Your task to perform on an android device: Clear all items from cart on costco. Search for "panasonic triple a" on costco, select the first entry, add it to the cart, then select checkout. Image 0: 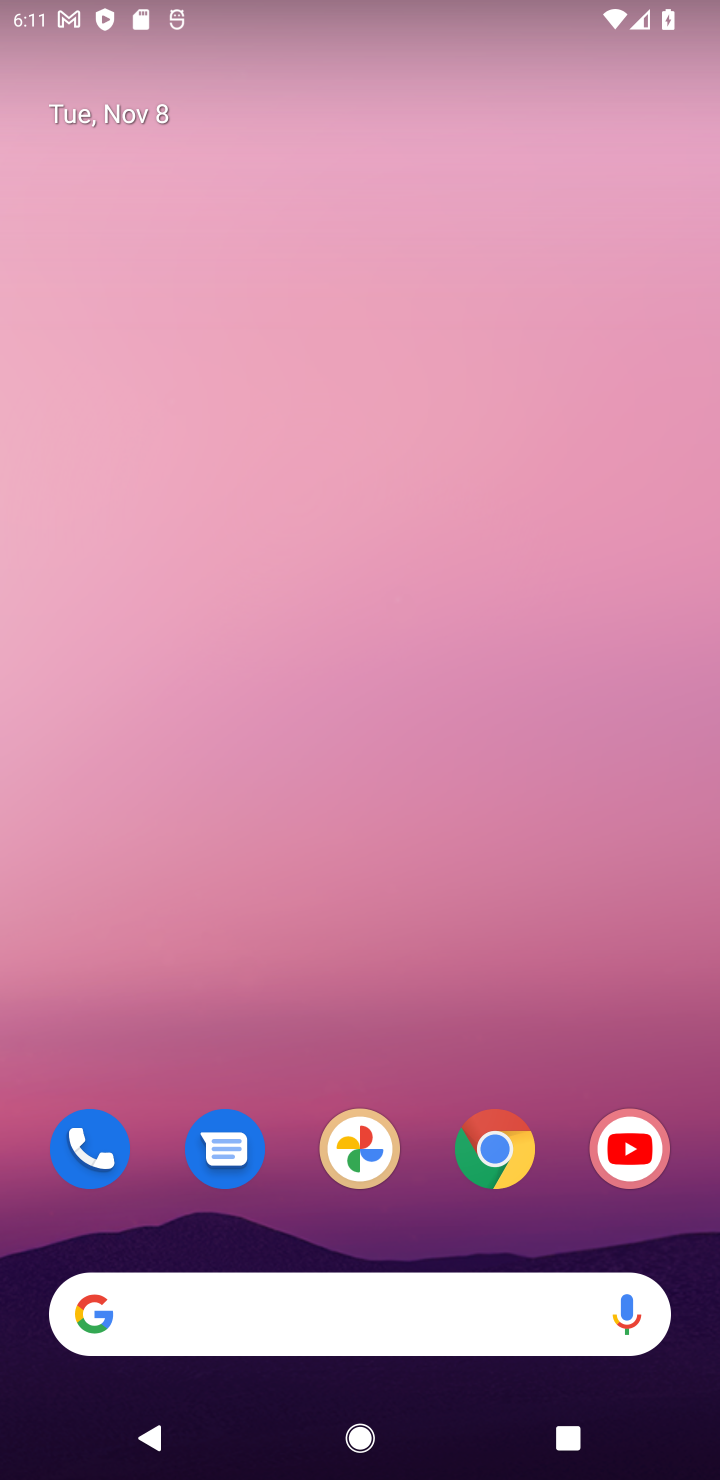
Step 0: click (467, 1135)
Your task to perform on an android device: Clear all items from cart on costco. Search for "panasonic triple a" on costco, select the first entry, add it to the cart, then select checkout. Image 1: 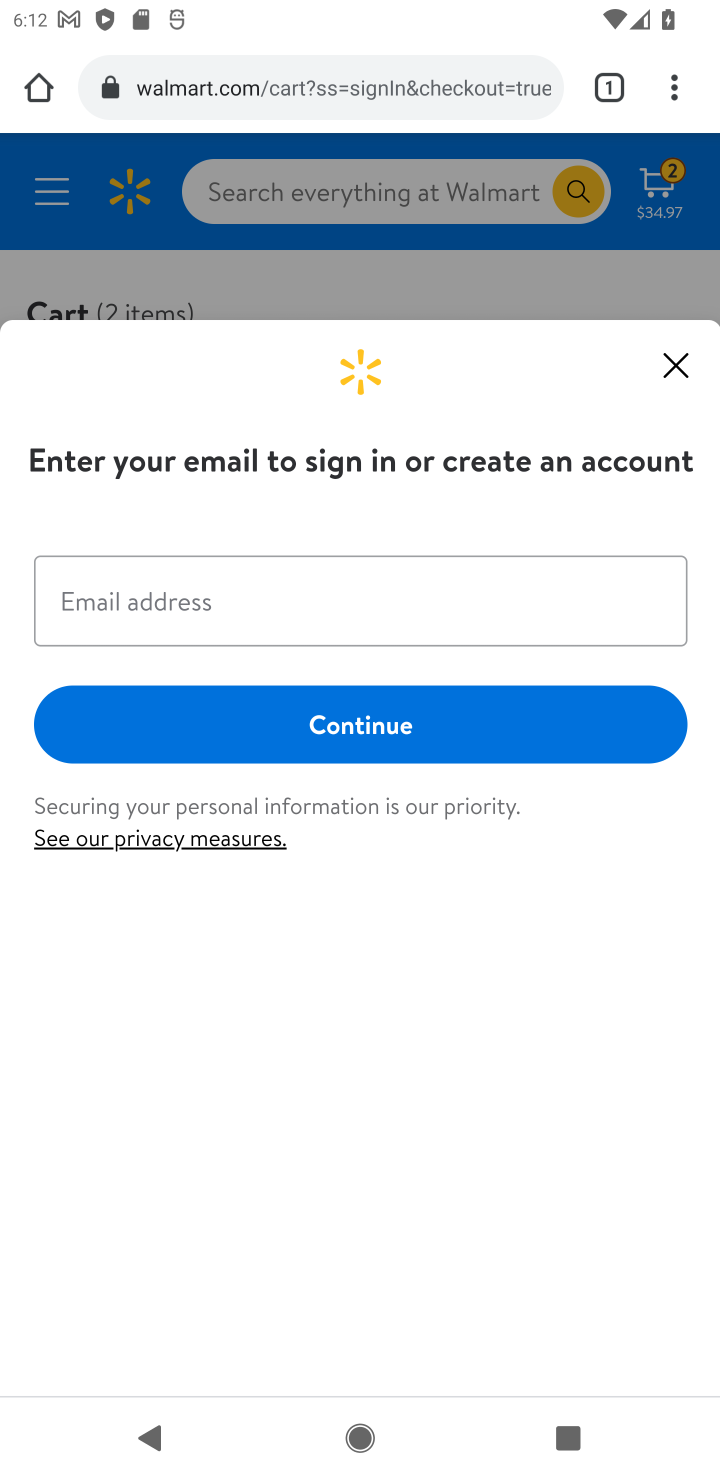
Step 1: click (462, 80)
Your task to perform on an android device: Clear all items from cart on costco. Search for "panasonic triple a" on costco, select the first entry, add it to the cart, then select checkout. Image 2: 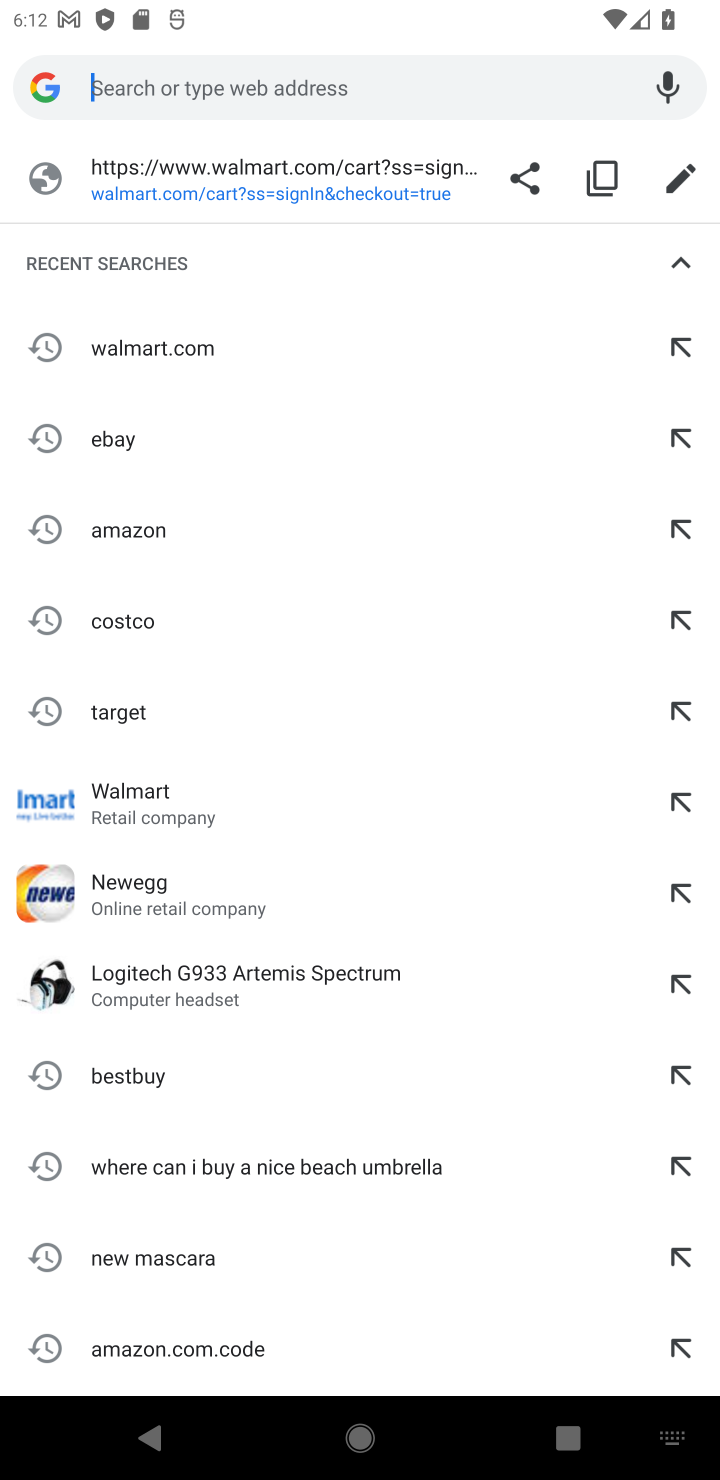
Step 2: click (140, 631)
Your task to perform on an android device: Clear all items from cart on costco. Search for "panasonic triple a" on costco, select the first entry, add it to the cart, then select checkout. Image 3: 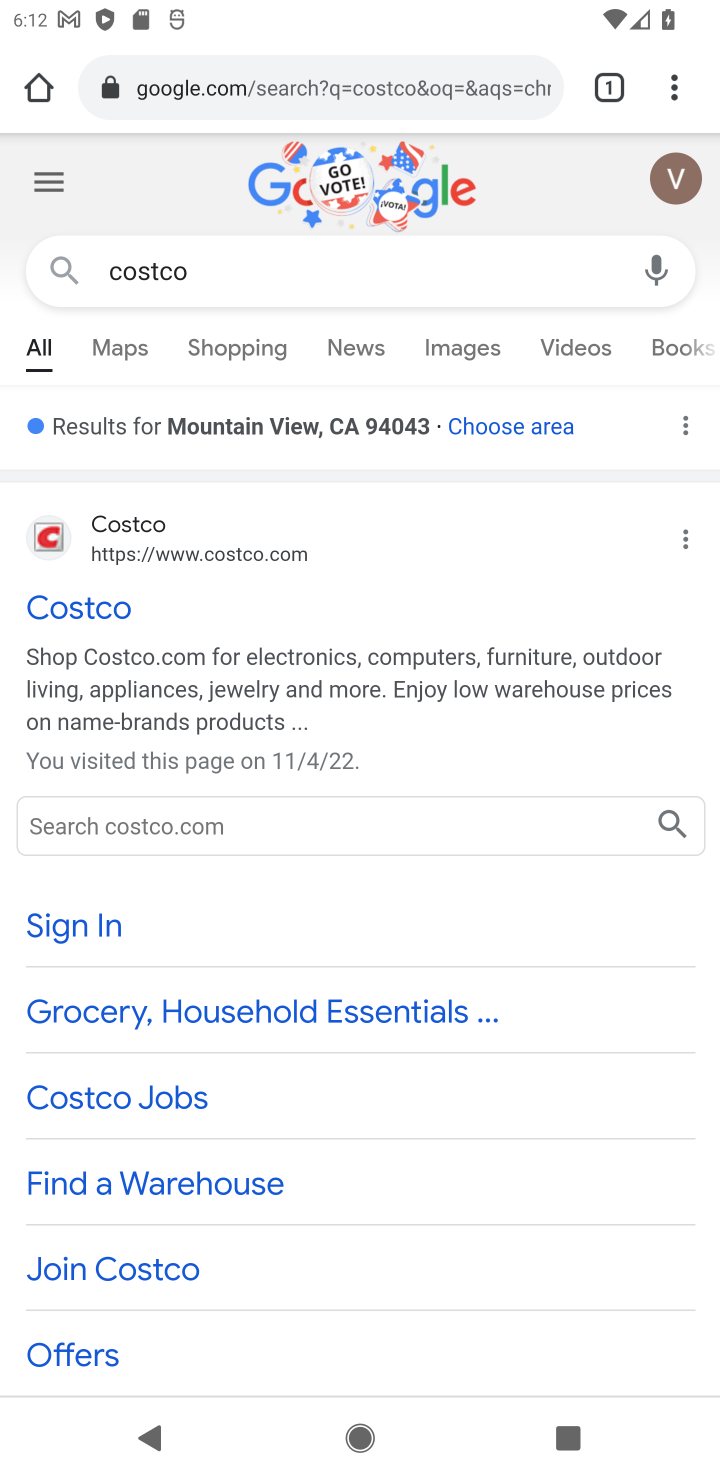
Step 3: click (243, 551)
Your task to perform on an android device: Clear all items from cart on costco. Search for "panasonic triple a" on costco, select the first entry, add it to the cart, then select checkout. Image 4: 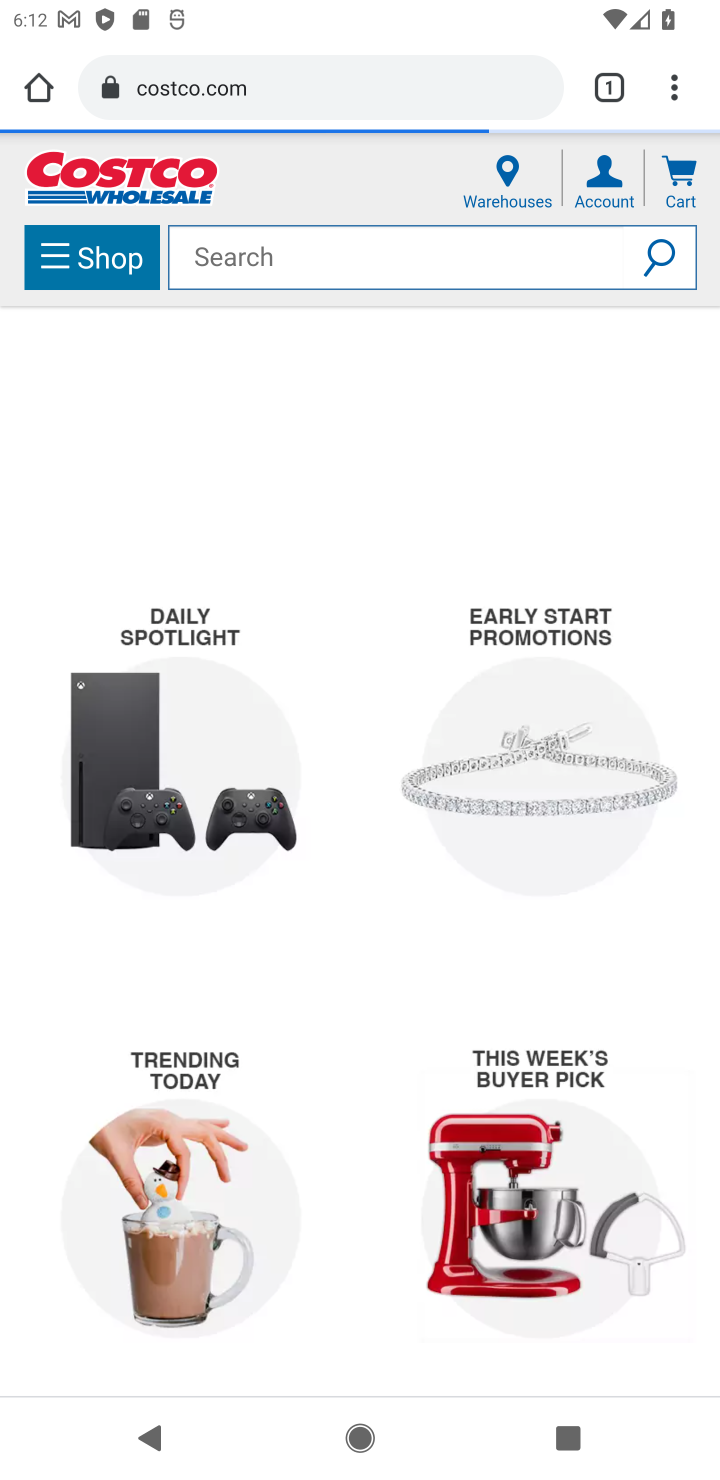
Step 4: click (421, 251)
Your task to perform on an android device: Clear all items from cart on costco. Search for "panasonic triple a" on costco, select the first entry, add it to the cart, then select checkout. Image 5: 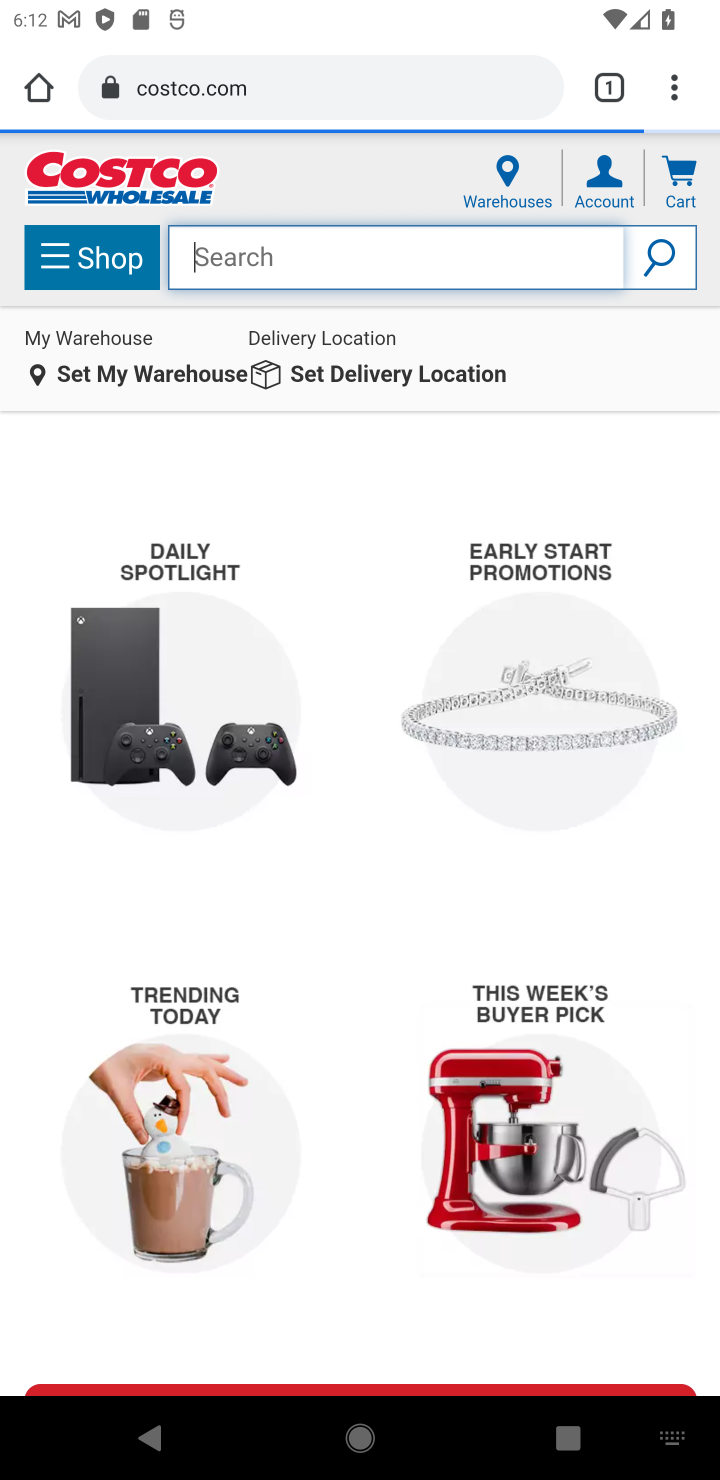
Step 5: type "costco"
Your task to perform on an android device: Clear all items from cart on costco. Search for "panasonic triple a" on costco, select the first entry, add it to the cart, then select checkout. Image 6: 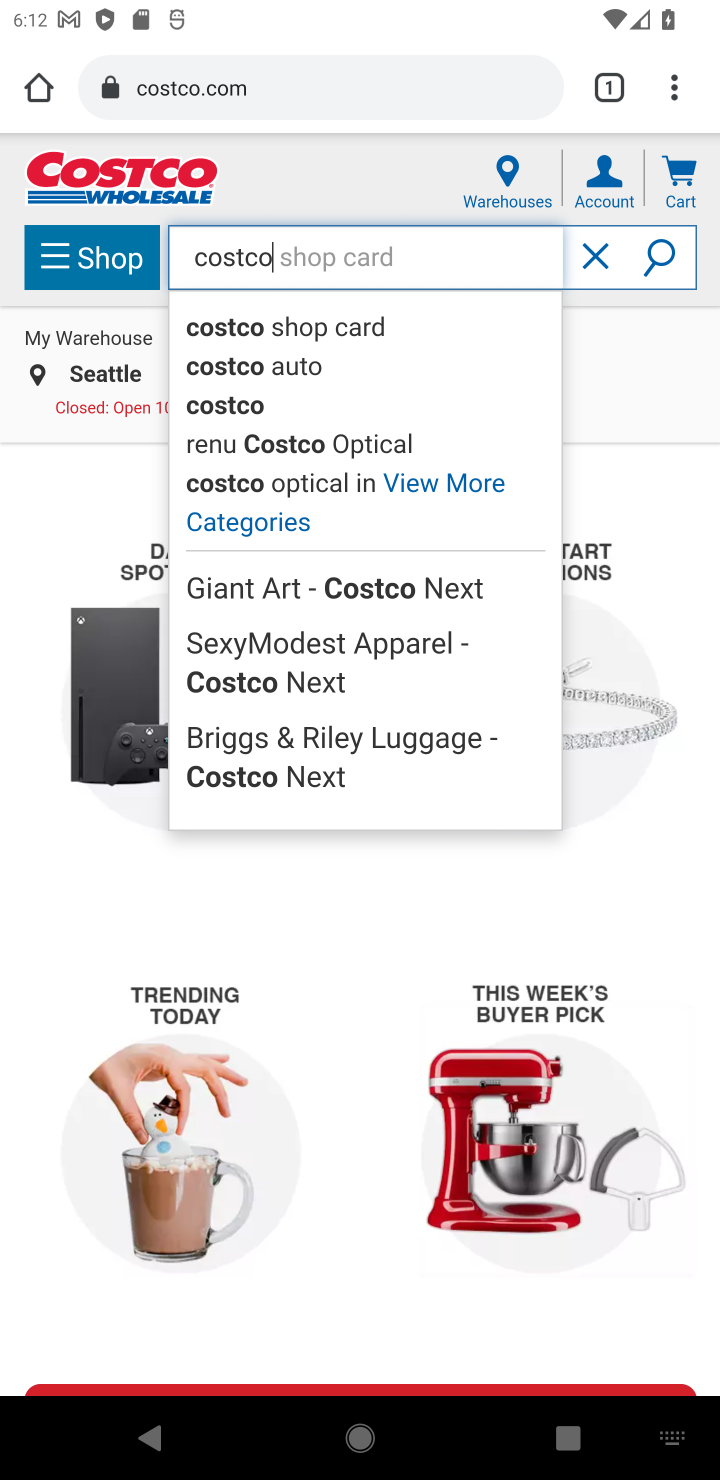
Step 6: click (240, 245)
Your task to perform on an android device: Clear all items from cart on costco. Search for "panasonic triple a" on costco, select the first entry, add it to the cart, then select checkout. Image 7: 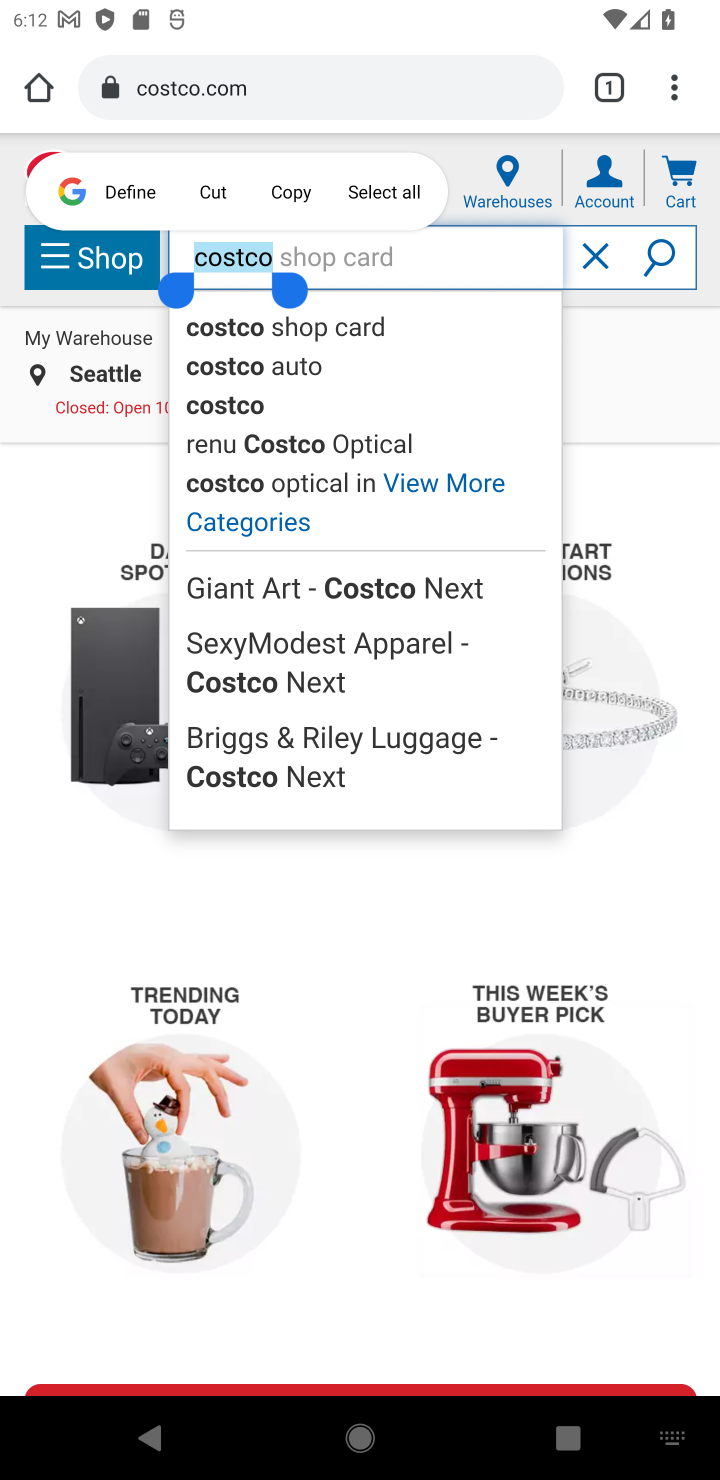
Step 7: click (601, 252)
Your task to perform on an android device: Clear all items from cart on costco. Search for "panasonic triple a" on costco, select the first entry, add it to the cart, then select checkout. Image 8: 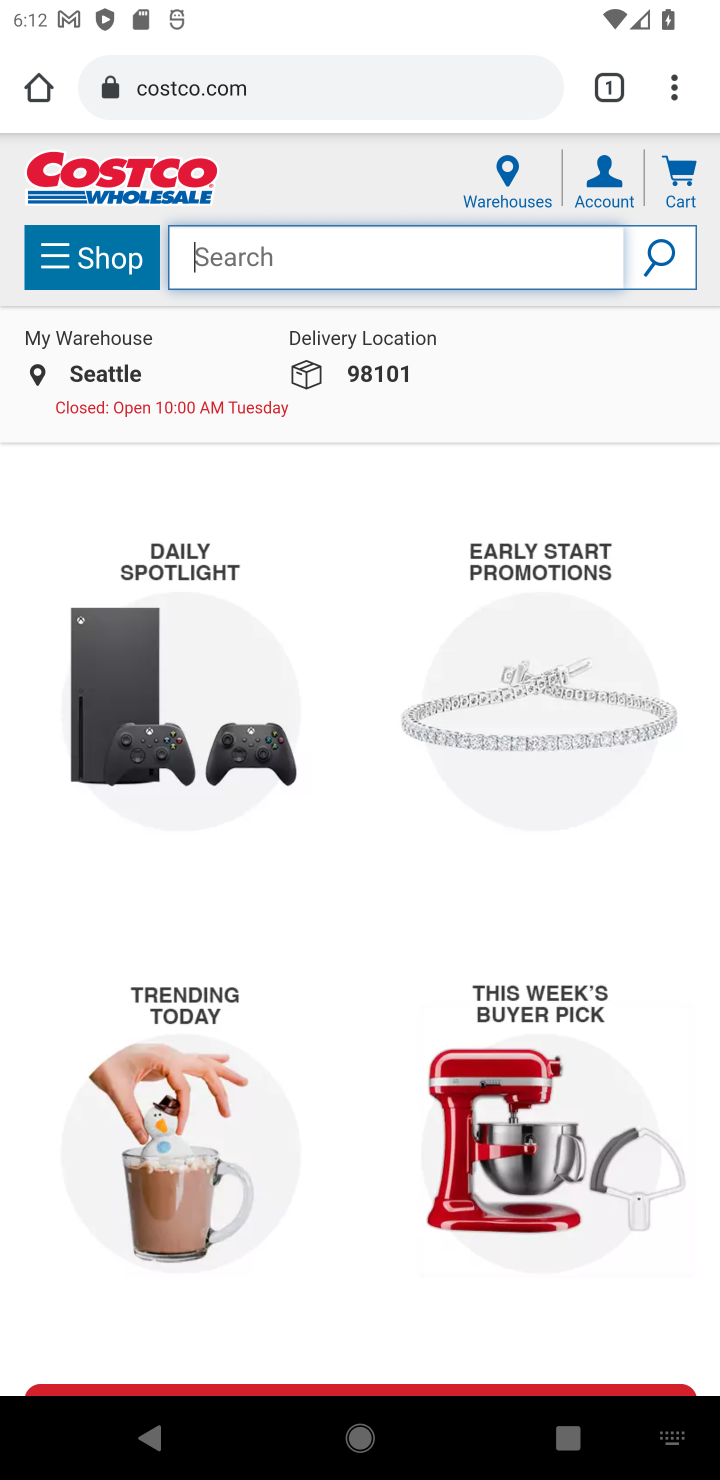
Step 8: click (676, 183)
Your task to perform on an android device: Clear all items from cart on costco. Search for "panasonic triple a" on costco, select the first entry, add it to the cart, then select checkout. Image 9: 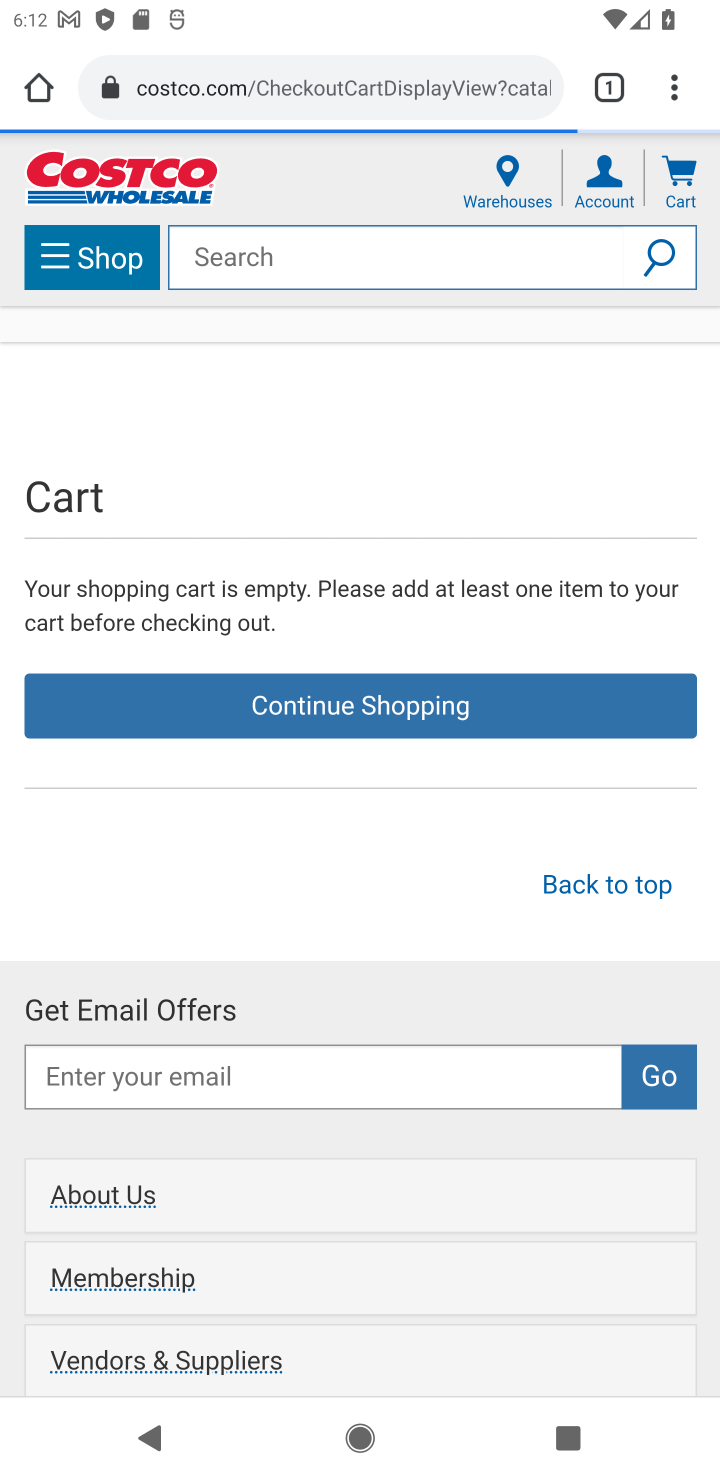
Step 9: click (485, 240)
Your task to perform on an android device: Clear all items from cart on costco. Search for "panasonic triple a" on costco, select the first entry, add it to the cart, then select checkout. Image 10: 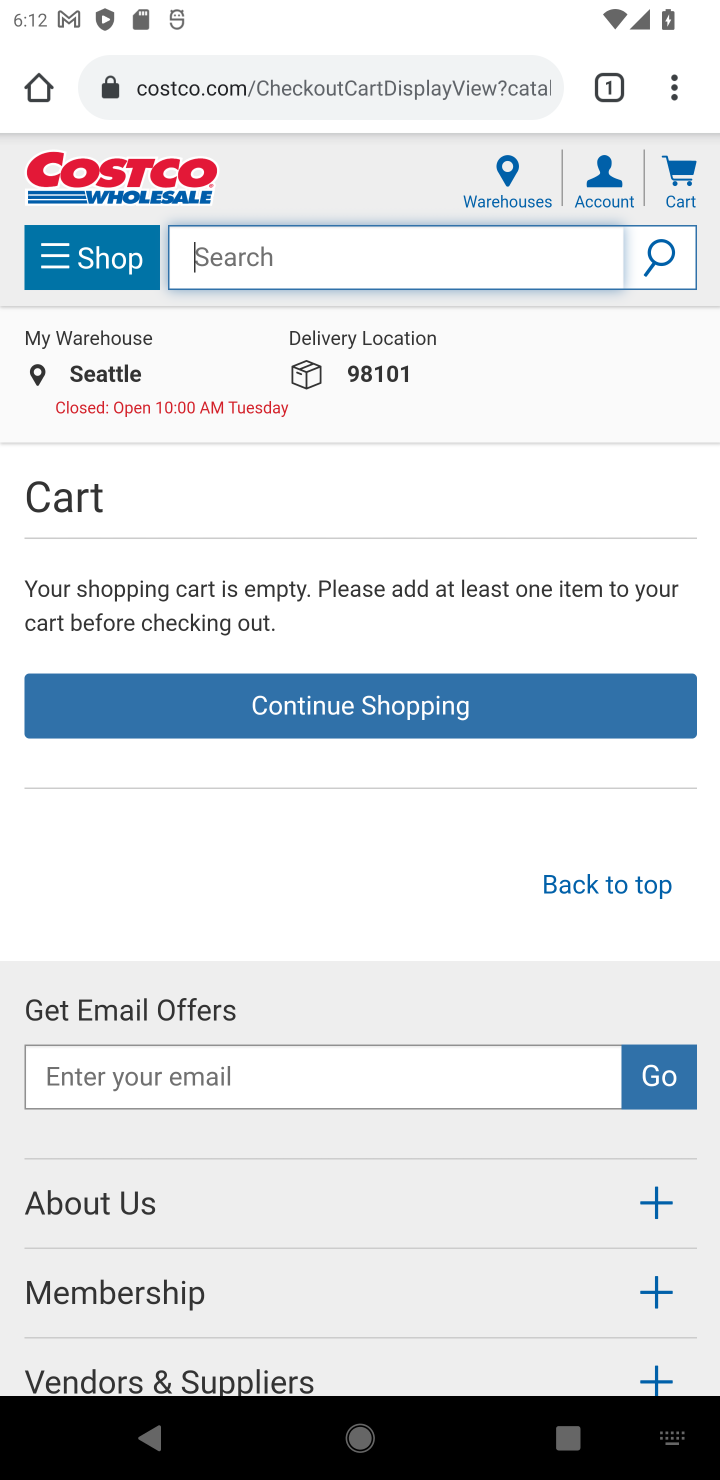
Step 10: drag from (42, 1399) to (68, 947)
Your task to perform on an android device: Clear all items from cart on costco. Search for "panasonic triple a" on costco, select the first entry, add it to the cart, then select checkout. Image 11: 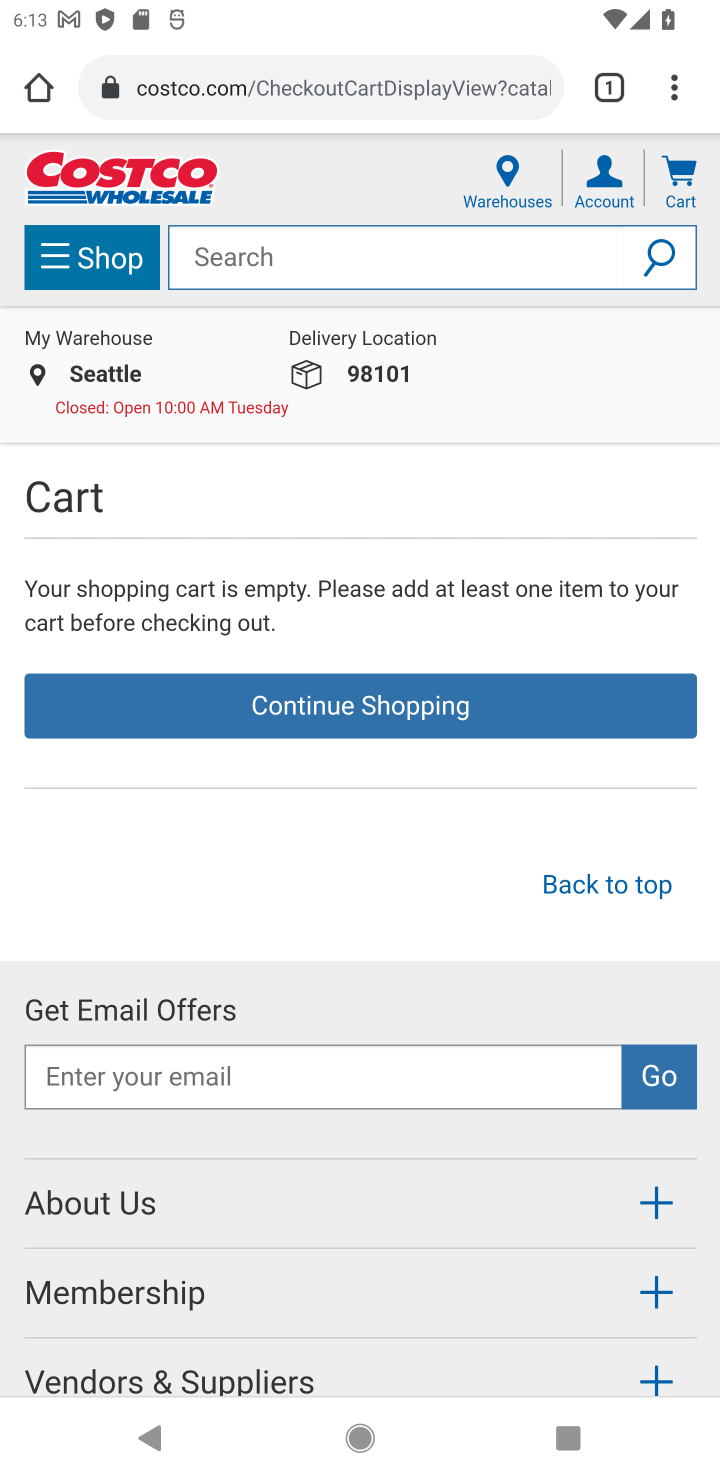
Step 11: type "panasonic triple a"
Your task to perform on an android device: Clear all items from cart on costco. Search for "panasonic triple a" on costco, select the first entry, add it to the cart, then select checkout. Image 12: 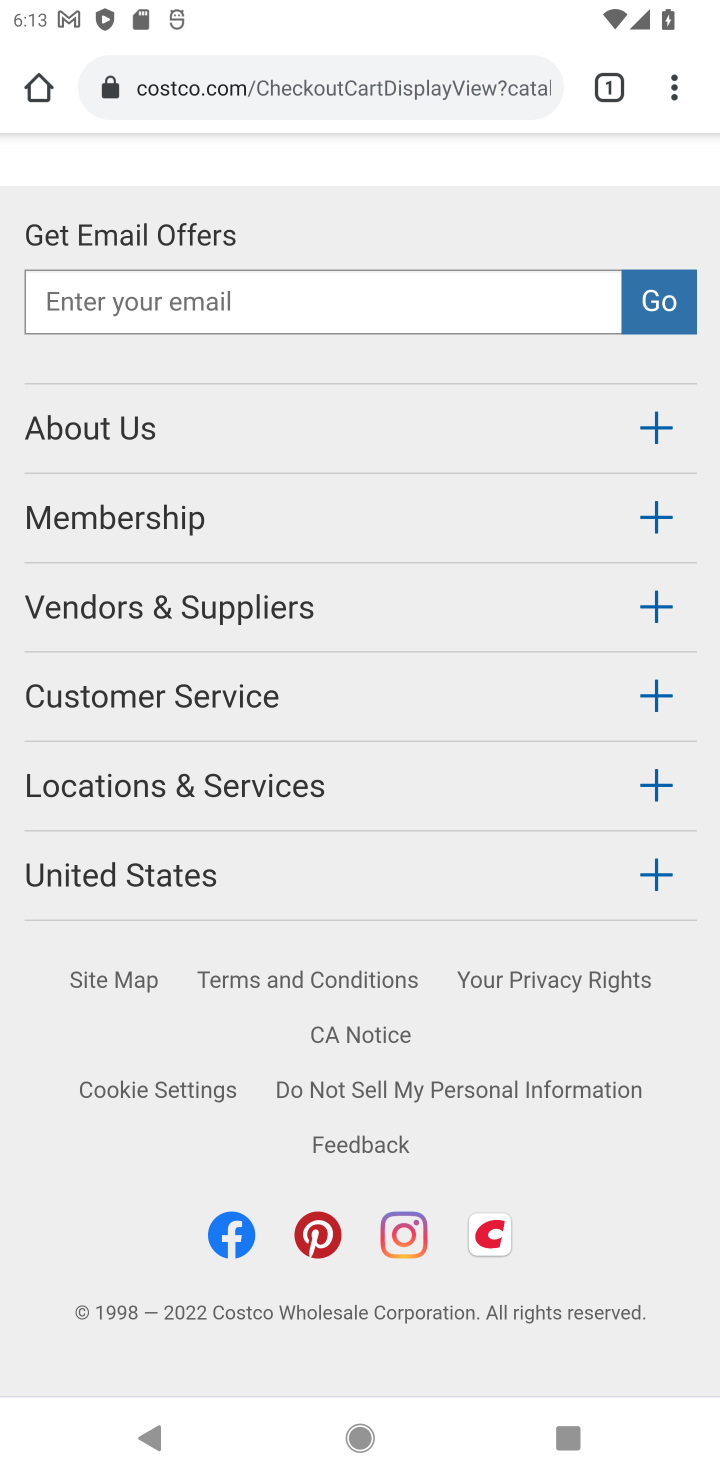
Step 12: drag from (506, 497) to (582, 1160)
Your task to perform on an android device: Clear all items from cart on costco. Search for "panasonic triple a" on costco, select the first entry, add it to the cart, then select checkout. Image 13: 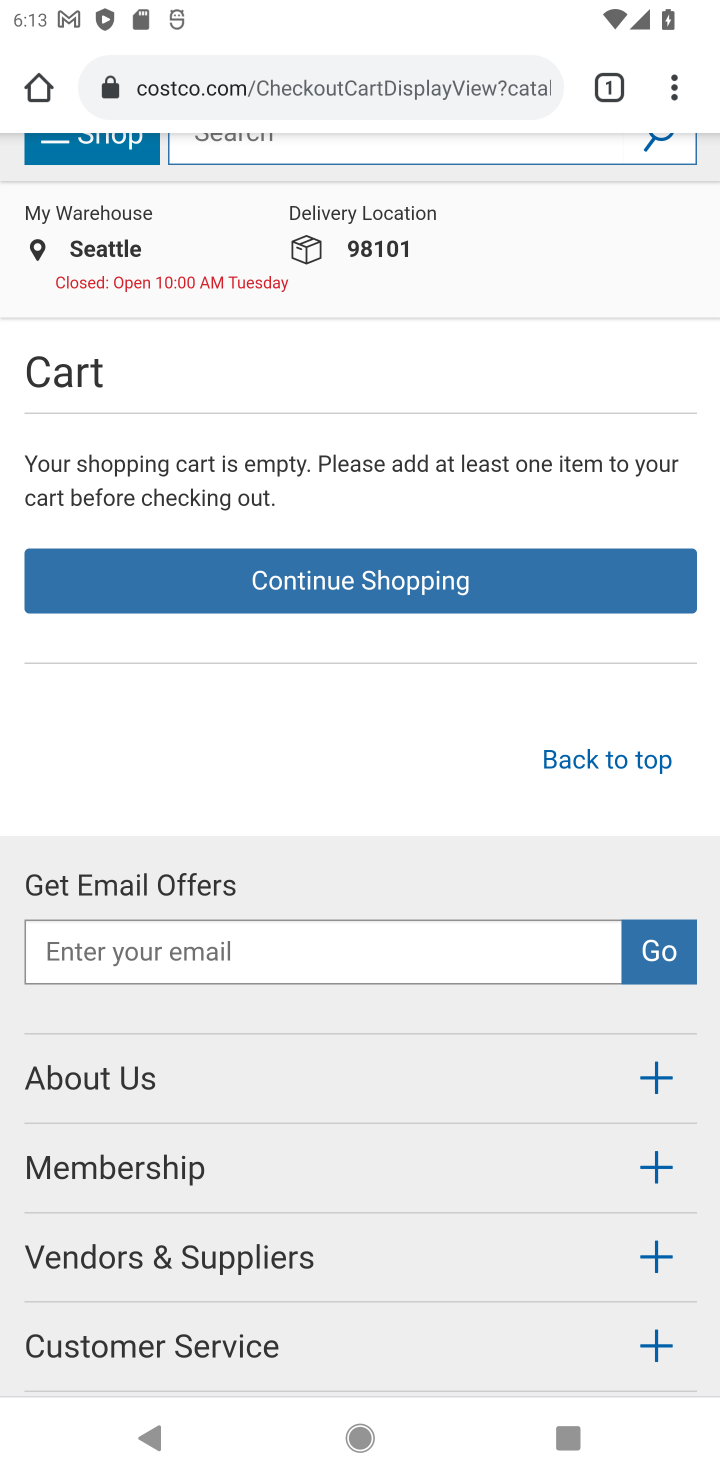
Step 13: drag from (455, 591) to (490, 847)
Your task to perform on an android device: Clear all items from cart on costco. Search for "panasonic triple a" on costco, select the first entry, add it to the cart, then select checkout. Image 14: 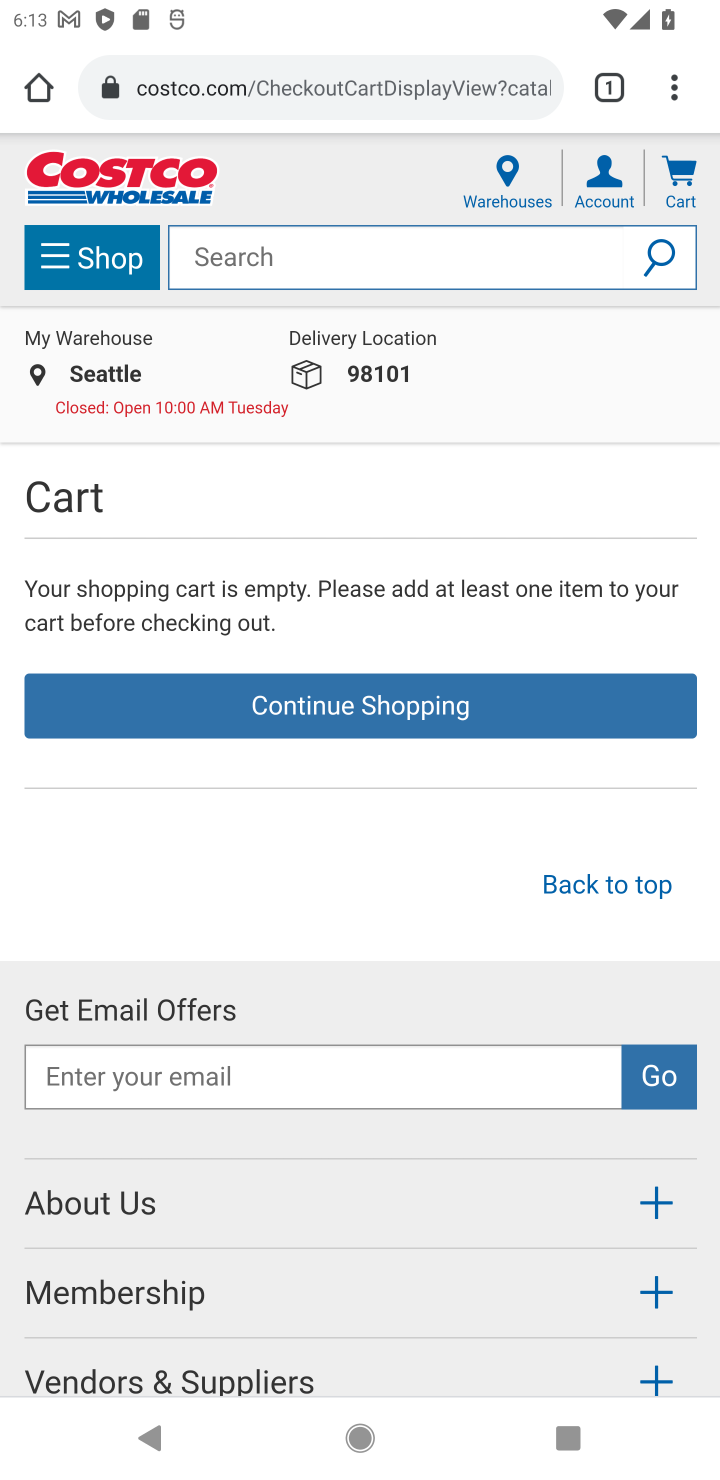
Step 14: click (498, 250)
Your task to perform on an android device: Clear all items from cart on costco. Search for "panasonic triple a" on costco, select the first entry, add it to the cart, then select checkout. Image 15: 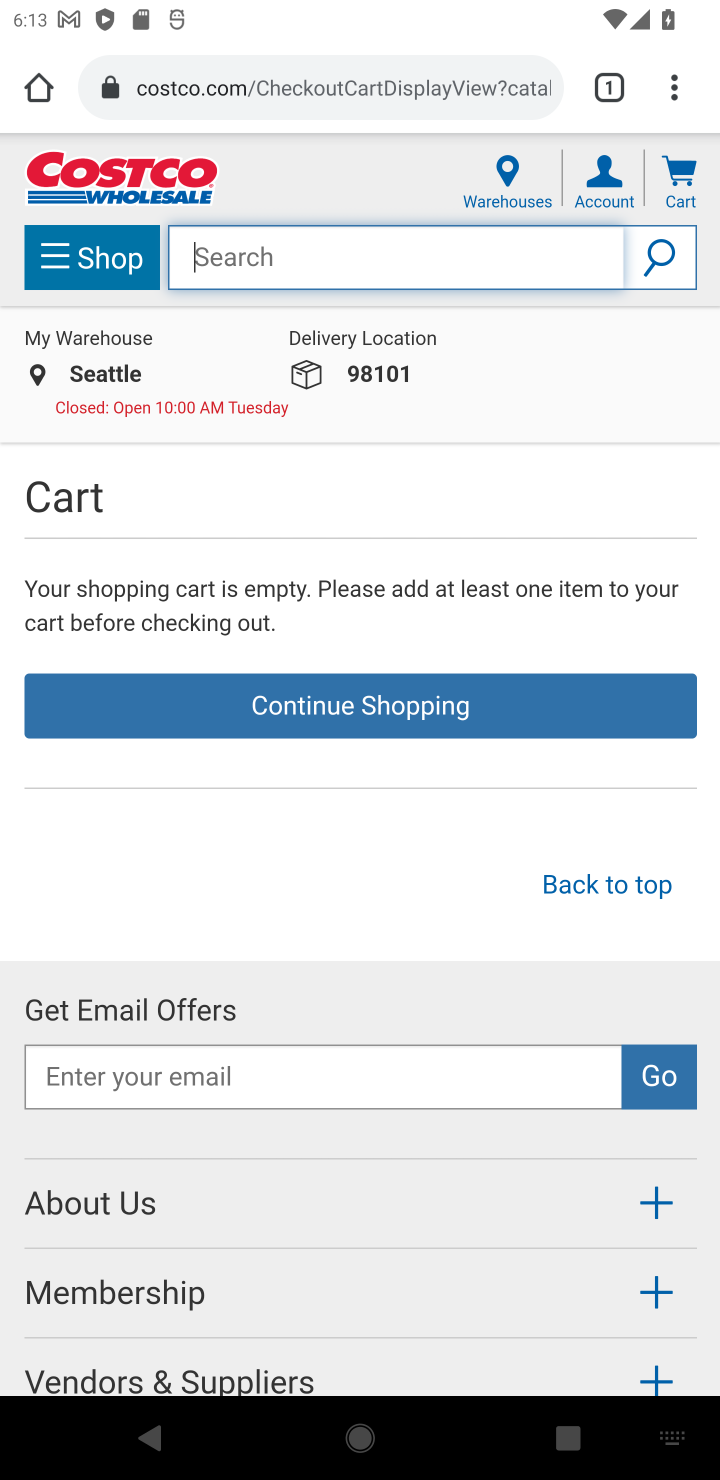
Step 15: type "panasonic triple a"
Your task to perform on an android device: Clear all items from cart on costco. Search for "panasonic triple a" on costco, select the first entry, add it to the cart, then select checkout. Image 16: 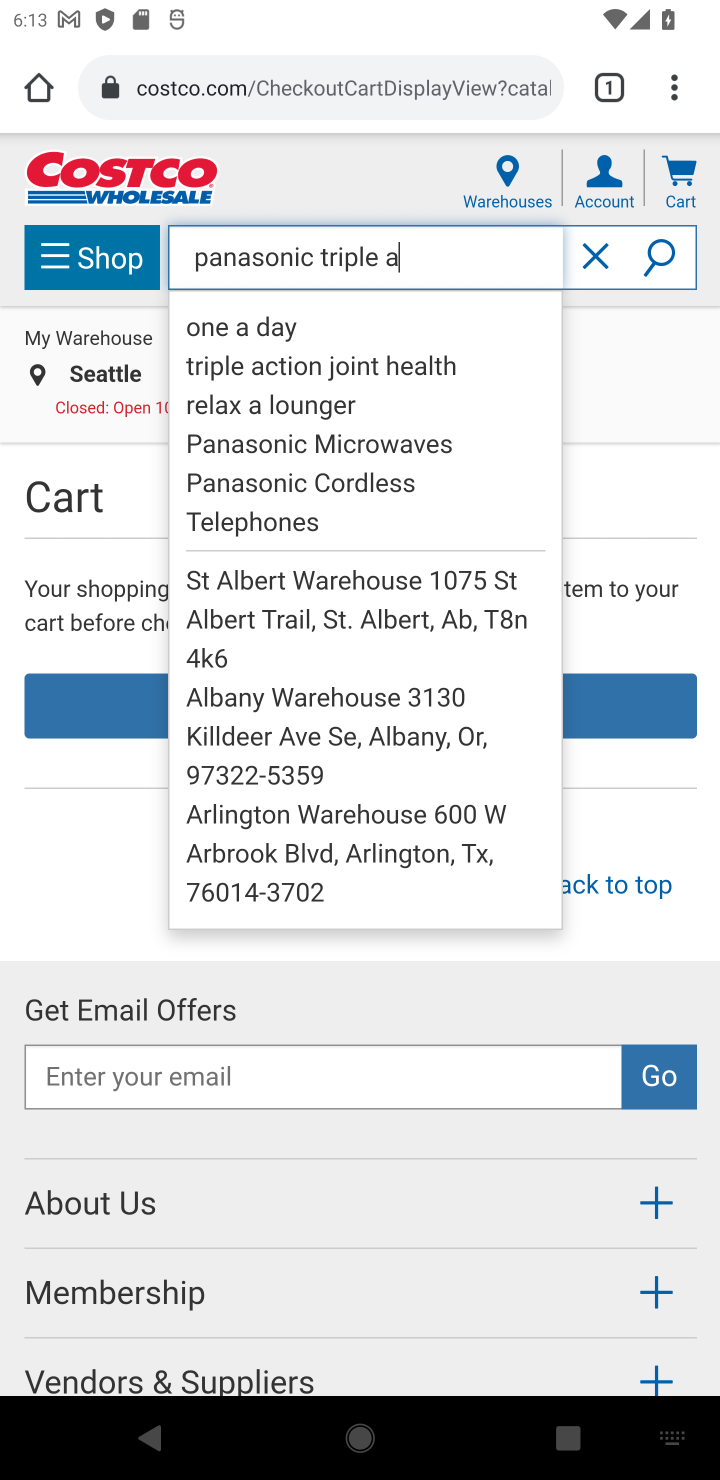
Step 16: click (648, 444)
Your task to perform on an android device: Clear all items from cart on costco. Search for "panasonic triple a" on costco, select the first entry, add it to the cart, then select checkout. Image 17: 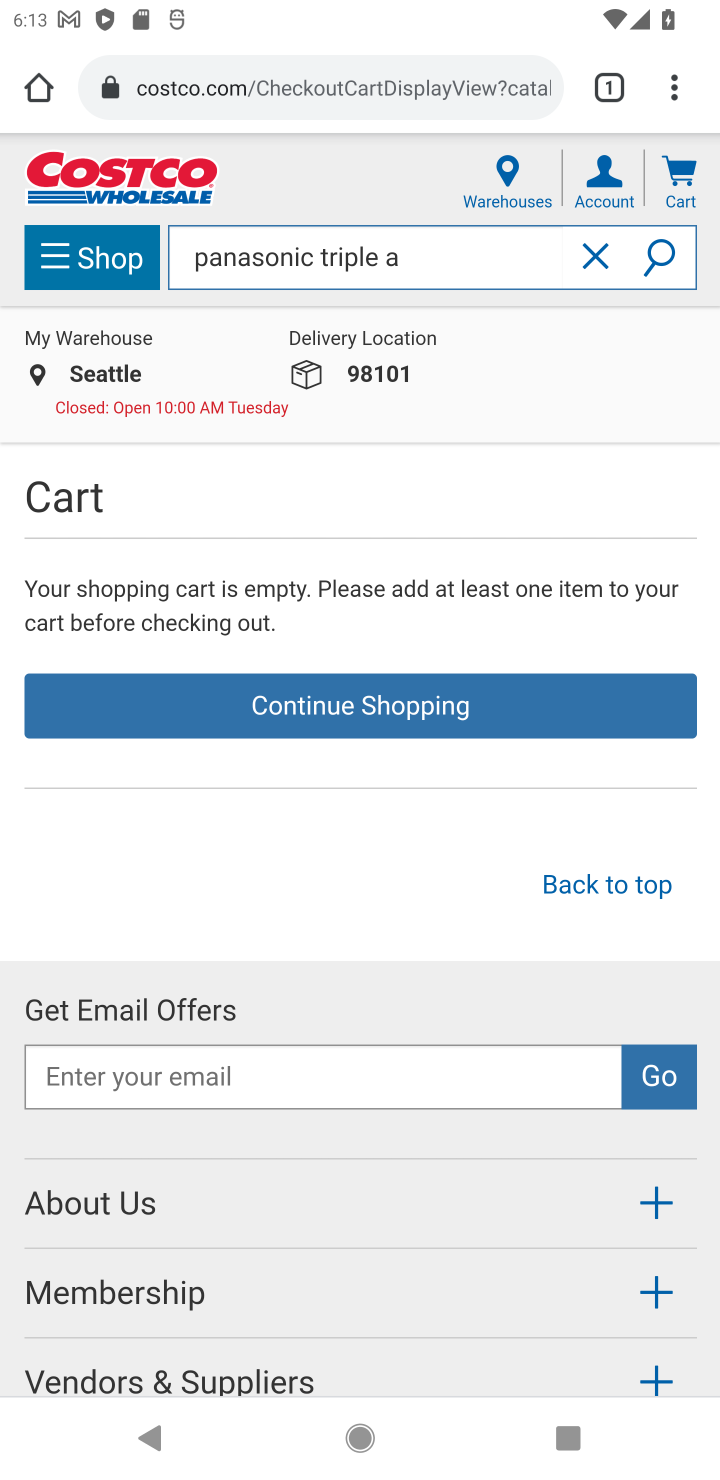
Step 17: task complete